Your task to perform on an android device: toggle translation in the chrome app Image 0: 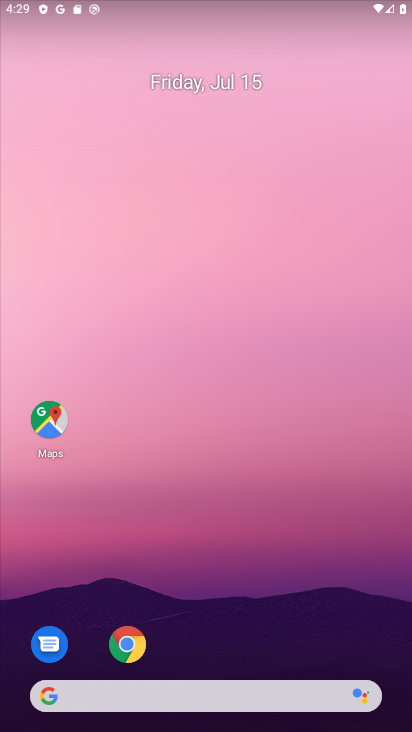
Step 0: click (138, 651)
Your task to perform on an android device: toggle translation in the chrome app Image 1: 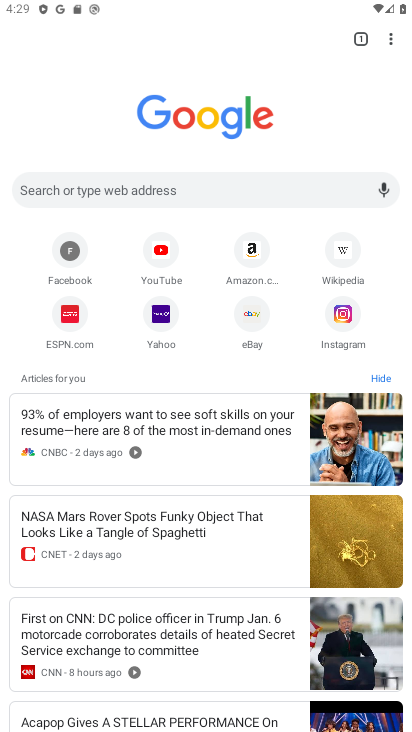
Step 1: click (390, 42)
Your task to perform on an android device: toggle translation in the chrome app Image 2: 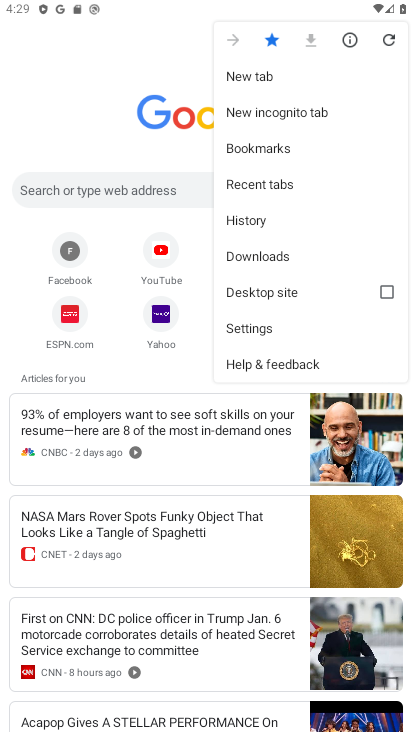
Step 2: click (260, 326)
Your task to perform on an android device: toggle translation in the chrome app Image 3: 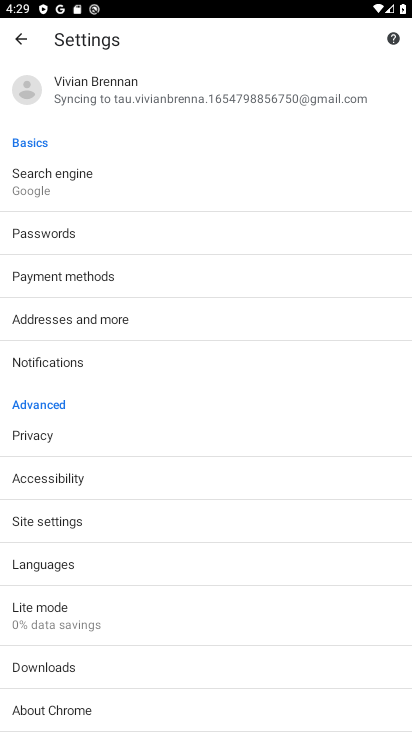
Step 3: drag from (250, 604) to (280, 277)
Your task to perform on an android device: toggle translation in the chrome app Image 4: 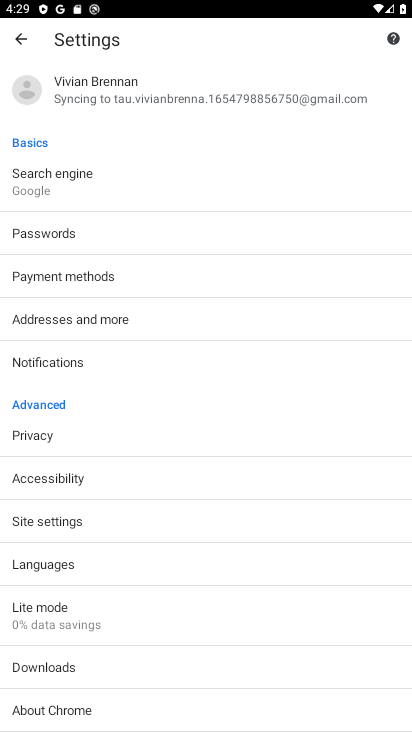
Step 4: drag from (285, 685) to (244, 291)
Your task to perform on an android device: toggle translation in the chrome app Image 5: 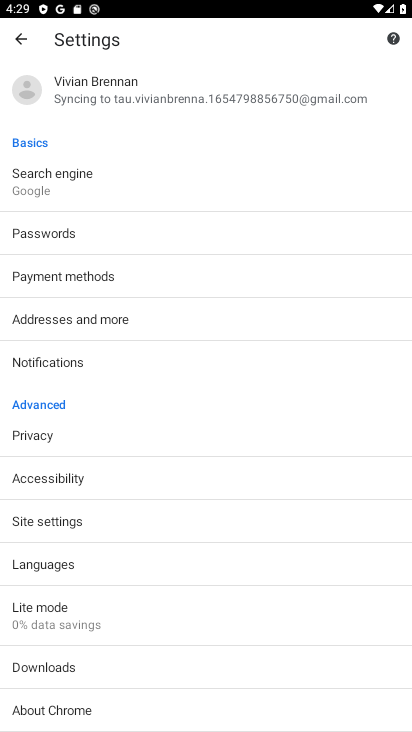
Step 5: drag from (206, 645) to (239, 338)
Your task to perform on an android device: toggle translation in the chrome app Image 6: 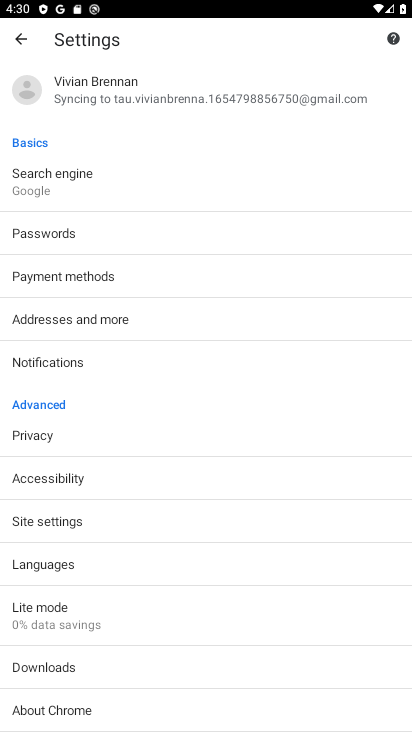
Step 6: click (46, 574)
Your task to perform on an android device: toggle translation in the chrome app Image 7: 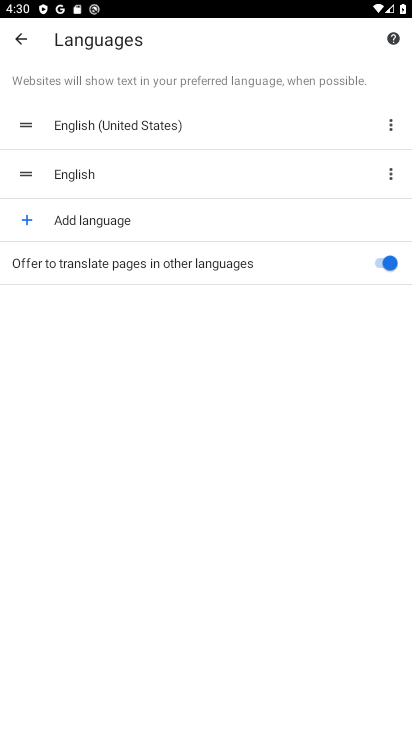
Step 7: click (127, 186)
Your task to perform on an android device: toggle translation in the chrome app Image 8: 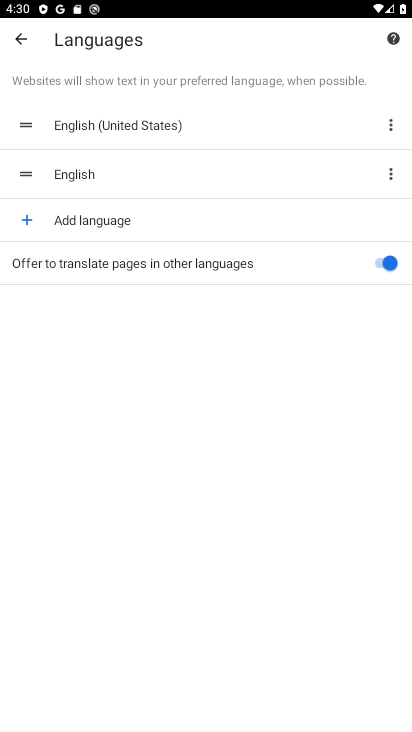
Step 8: click (381, 267)
Your task to perform on an android device: toggle translation in the chrome app Image 9: 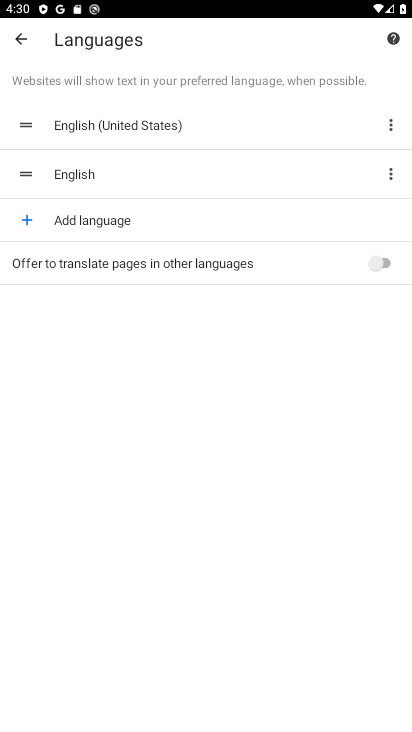
Step 9: task complete